Your task to perform on an android device: check out phone information Image 0: 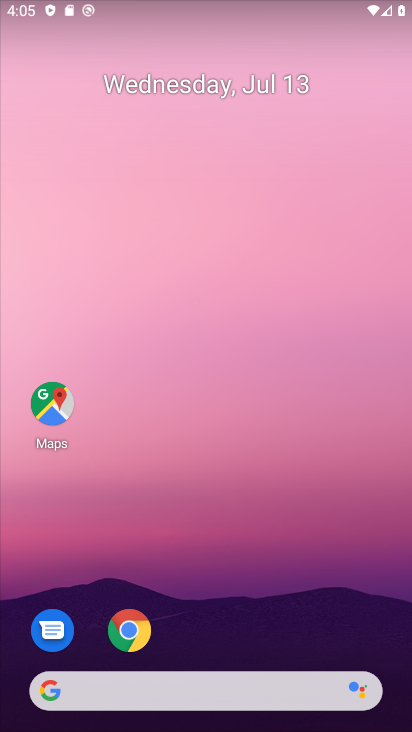
Step 0: press home button
Your task to perform on an android device: check out phone information Image 1: 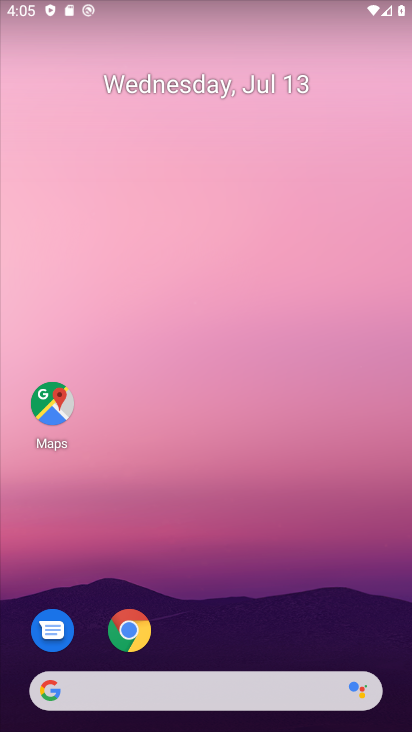
Step 1: drag from (225, 606) to (225, 132)
Your task to perform on an android device: check out phone information Image 2: 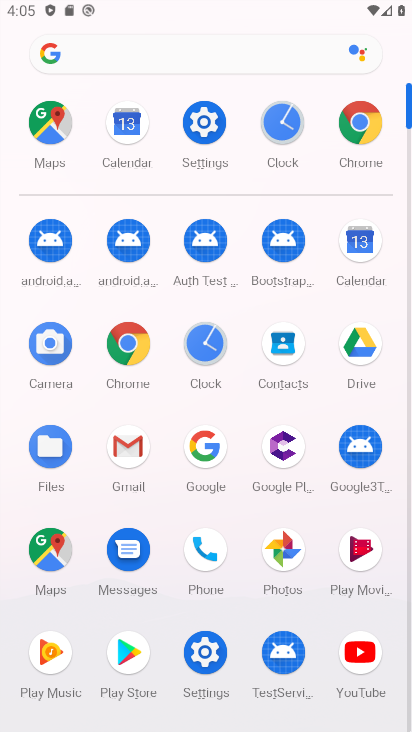
Step 2: click (198, 122)
Your task to perform on an android device: check out phone information Image 3: 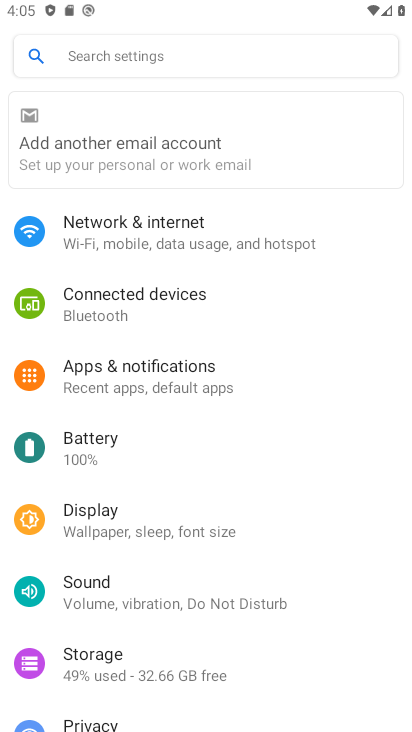
Step 3: drag from (286, 660) to (299, 122)
Your task to perform on an android device: check out phone information Image 4: 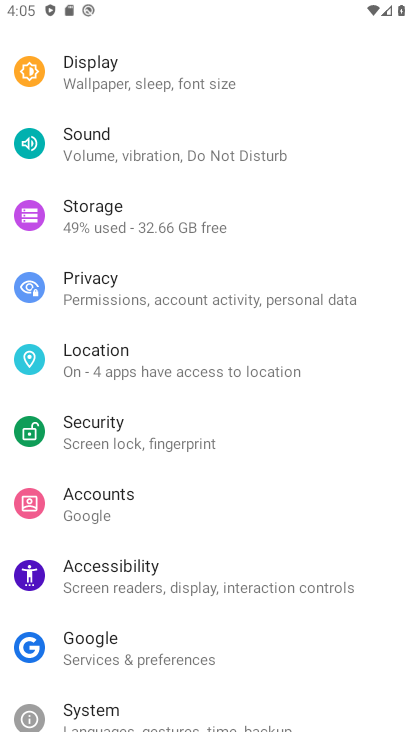
Step 4: drag from (272, 634) to (289, 200)
Your task to perform on an android device: check out phone information Image 5: 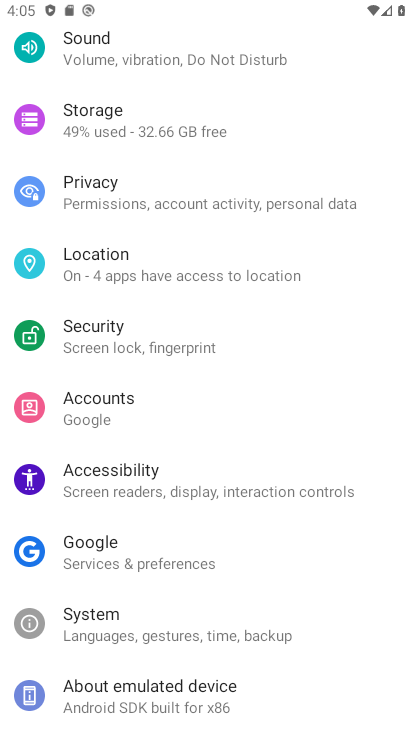
Step 5: click (150, 703)
Your task to perform on an android device: check out phone information Image 6: 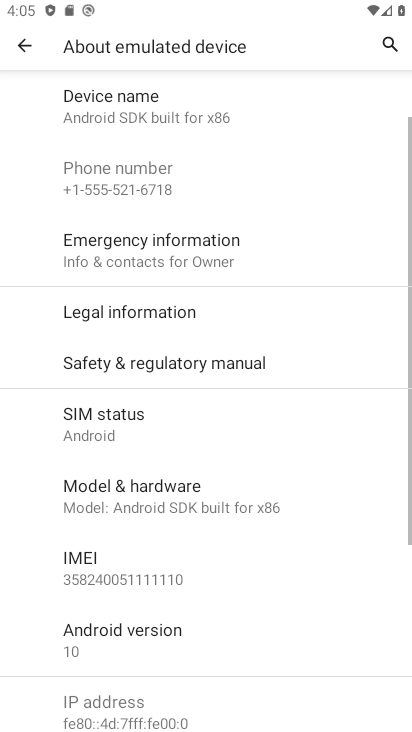
Step 6: task complete